Your task to perform on an android device: check out phone information Image 0: 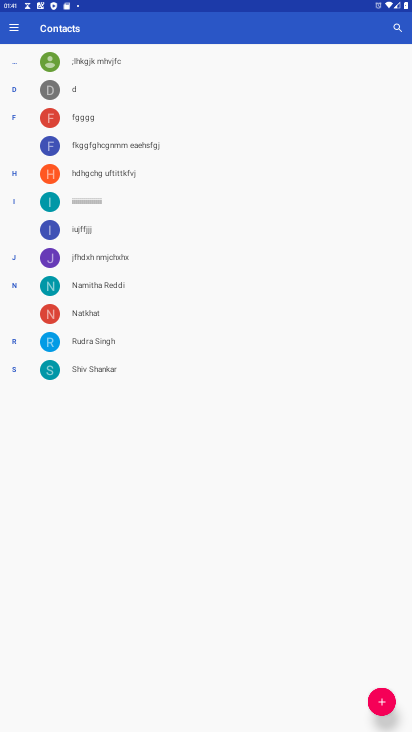
Step 0: press home button
Your task to perform on an android device: check out phone information Image 1: 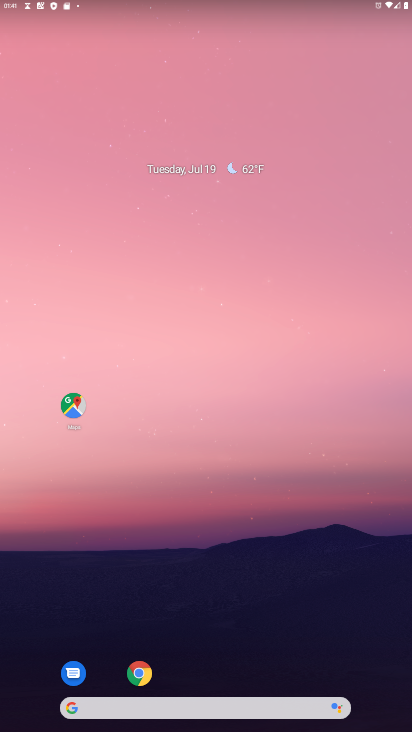
Step 1: drag from (230, 730) to (227, 193)
Your task to perform on an android device: check out phone information Image 2: 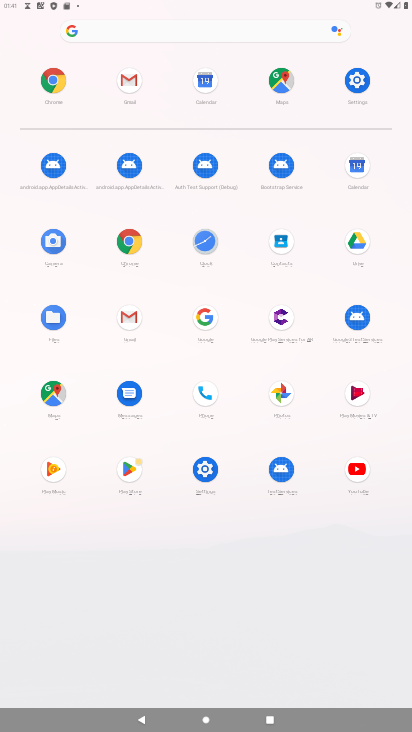
Step 2: click (353, 77)
Your task to perform on an android device: check out phone information Image 3: 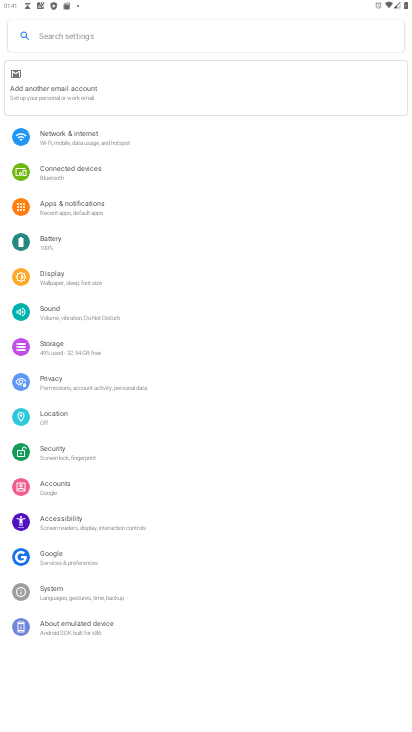
Step 3: click (75, 632)
Your task to perform on an android device: check out phone information Image 4: 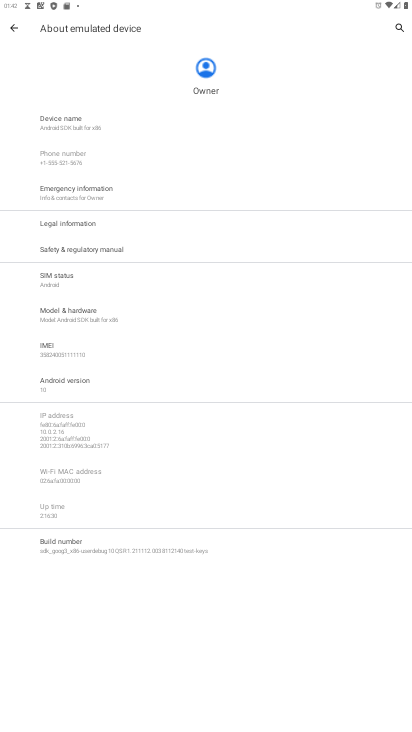
Step 4: task complete